Your task to perform on an android device: delete the emails in spam in the gmail app Image 0: 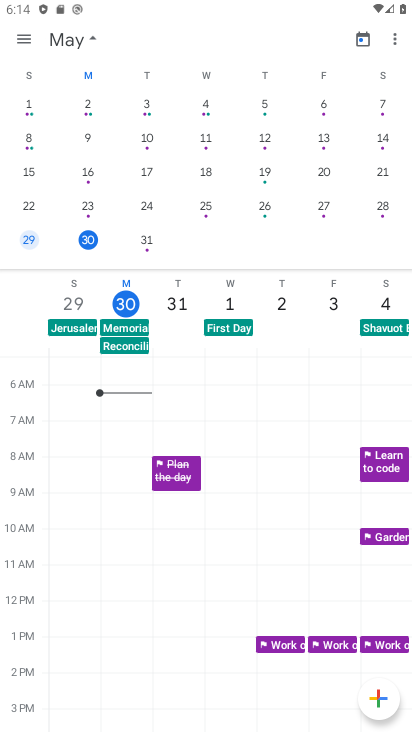
Step 0: press home button
Your task to perform on an android device: delete the emails in spam in the gmail app Image 1: 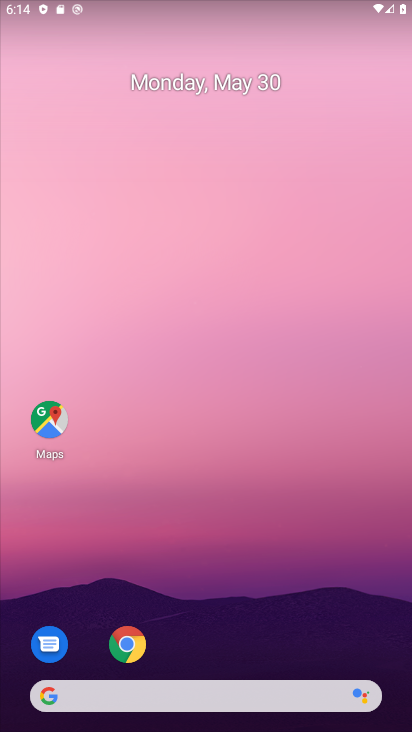
Step 1: drag from (220, 659) to (194, 176)
Your task to perform on an android device: delete the emails in spam in the gmail app Image 2: 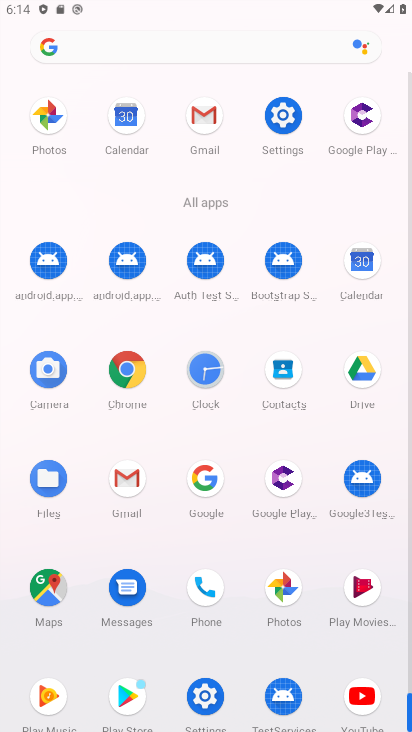
Step 2: click (129, 485)
Your task to perform on an android device: delete the emails in spam in the gmail app Image 3: 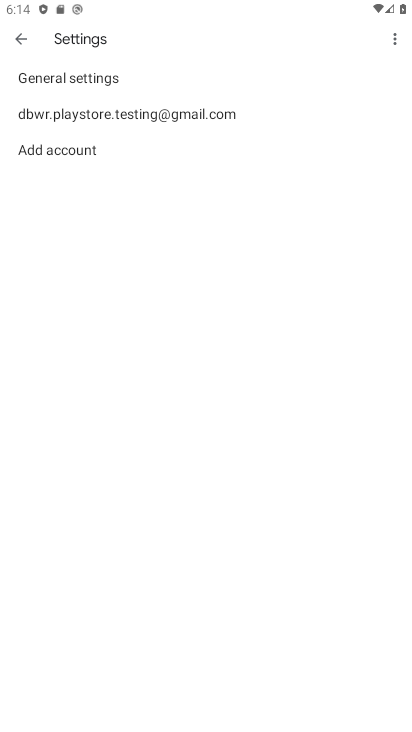
Step 3: click (104, 118)
Your task to perform on an android device: delete the emails in spam in the gmail app Image 4: 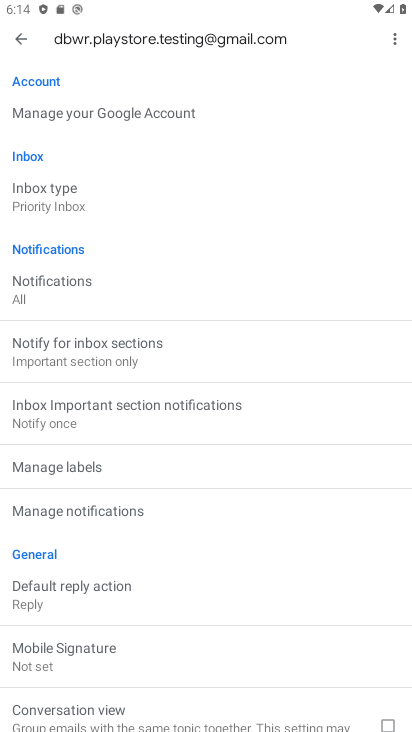
Step 4: press back button
Your task to perform on an android device: delete the emails in spam in the gmail app Image 5: 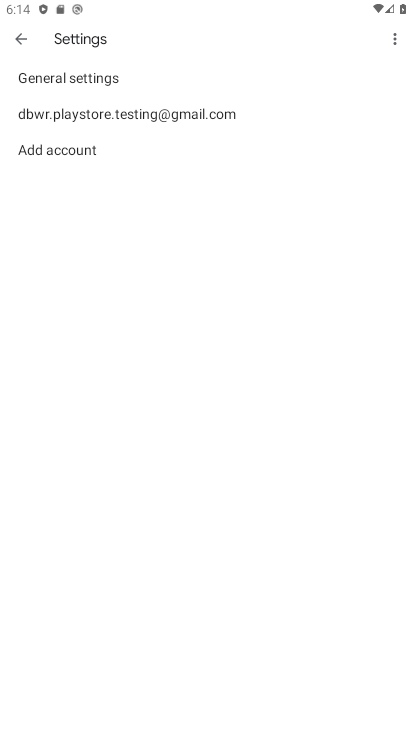
Step 5: press back button
Your task to perform on an android device: delete the emails in spam in the gmail app Image 6: 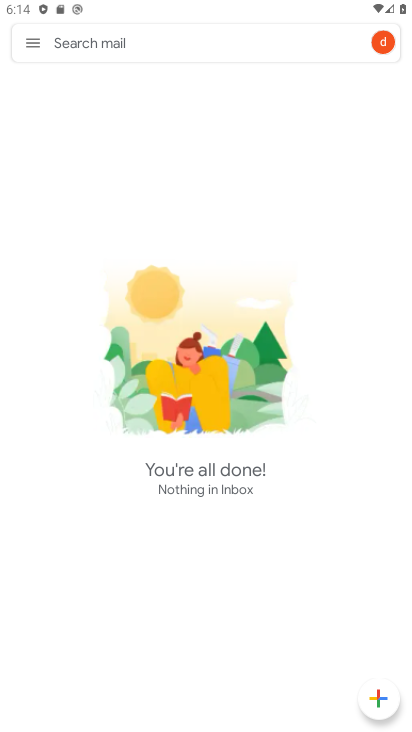
Step 6: click (38, 52)
Your task to perform on an android device: delete the emails in spam in the gmail app Image 7: 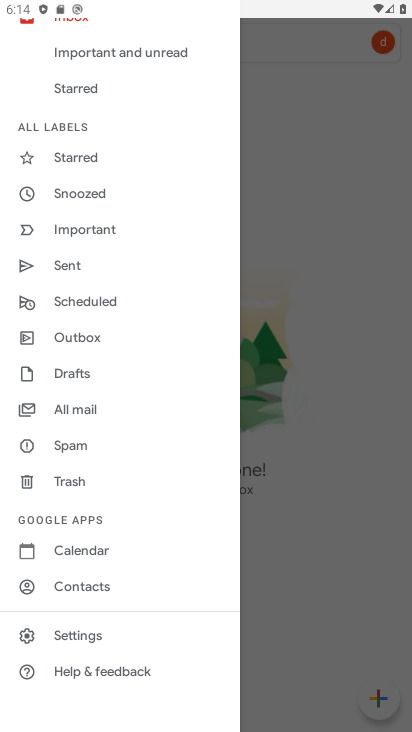
Step 7: click (81, 419)
Your task to perform on an android device: delete the emails in spam in the gmail app Image 8: 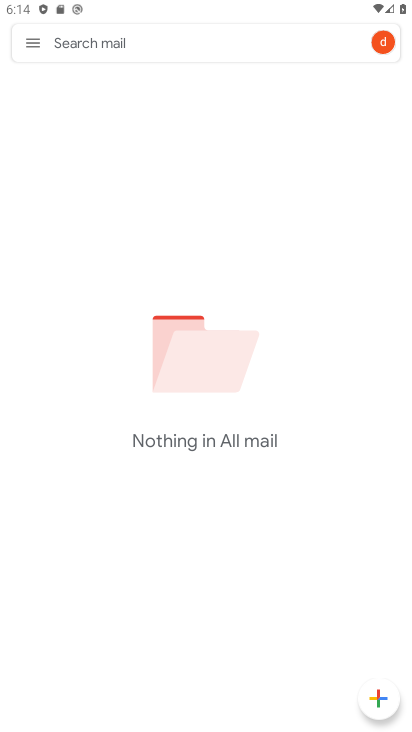
Step 8: task complete